Your task to perform on an android device: Search for seafood restaurants on Google Maps Image 0: 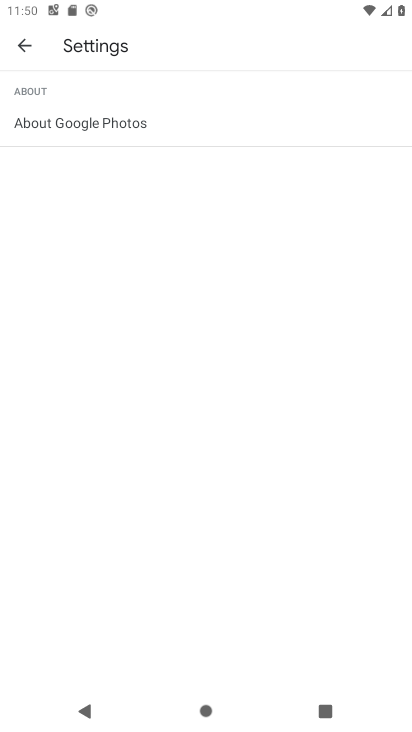
Step 0: press home button
Your task to perform on an android device: Search for seafood restaurants on Google Maps Image 1: 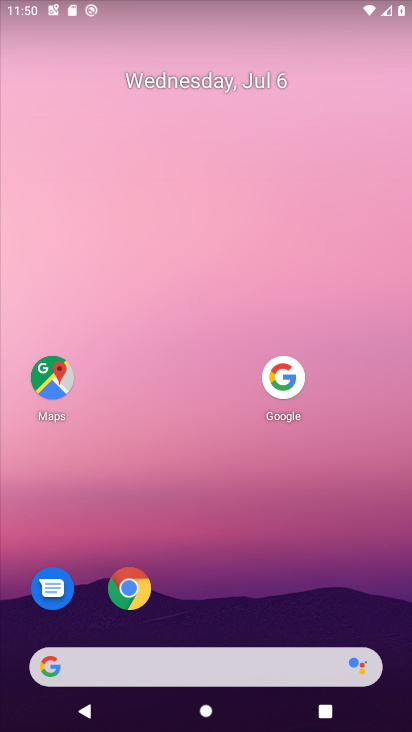
Step 1: click (45, 381)
Your task to perform on an android device: Search for seafood restaurants on Google Maps Image 2: 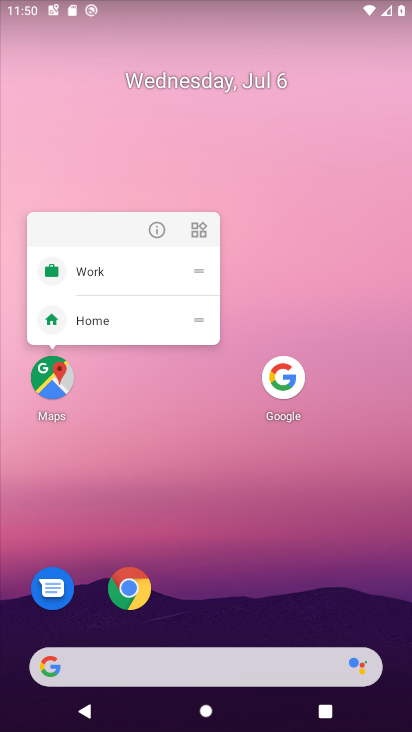
Step 2: click (57, 376)
Your task to perform on an android device: Search for seafood restaurants on Google Maps Image 3: 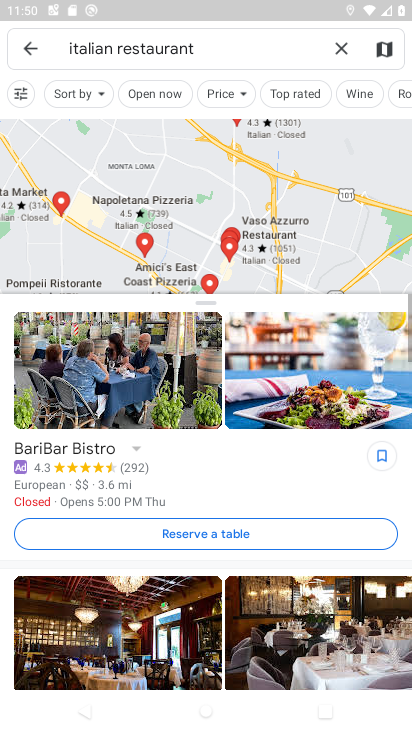
Step 3: click (339, 50)
Your task to perform on an android device: Search for seafood restaurants on Google Maps Image 4: 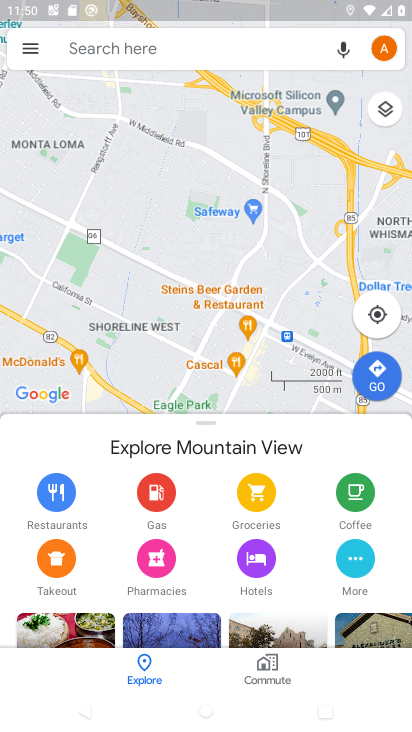
Step 4: click (203, 55)
Your task to perform on an android device: Search for seafood restaurants on Google Maps Image 5: 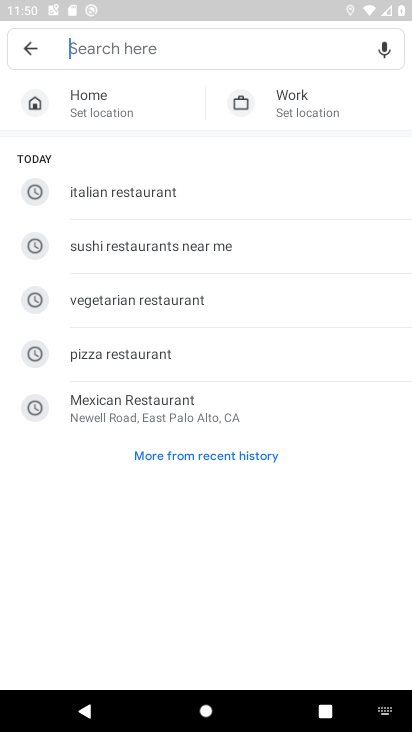
Step 5: type "seafood restaurants"
Your task to perform on an android device: Search for seafood restaurants on Google Maps Image 6: 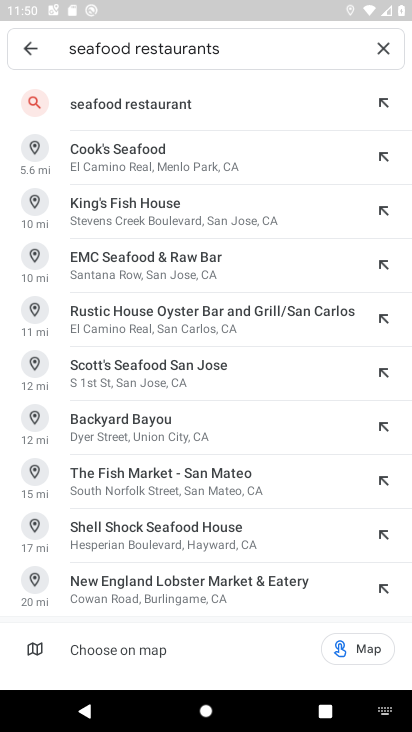
Step 6: click (153, 94)
Your task to perform on an android device: Search for seafood restaurants on Google Maps Image 7: 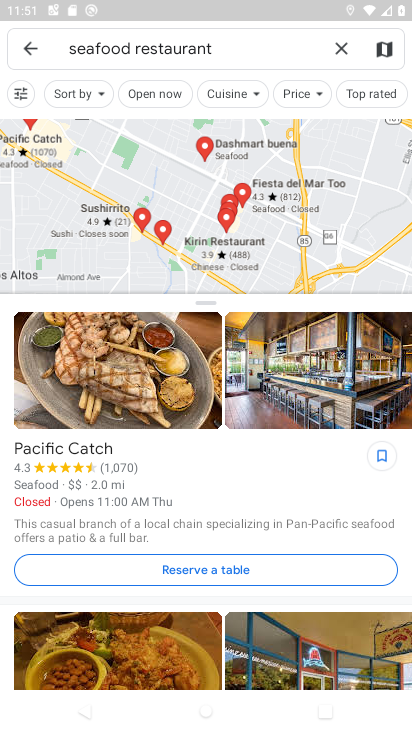
Step 7: task complete